Your task to perform on an android device: Do I have any events this weekend? Image 0: 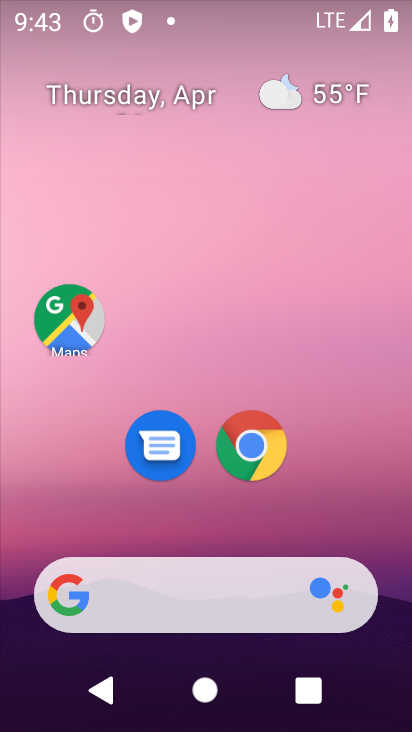
Step 0: drag from (381, 546) to (3, 371)
Your task to perform on an android device: Do I have any events this weekend? Image 1: 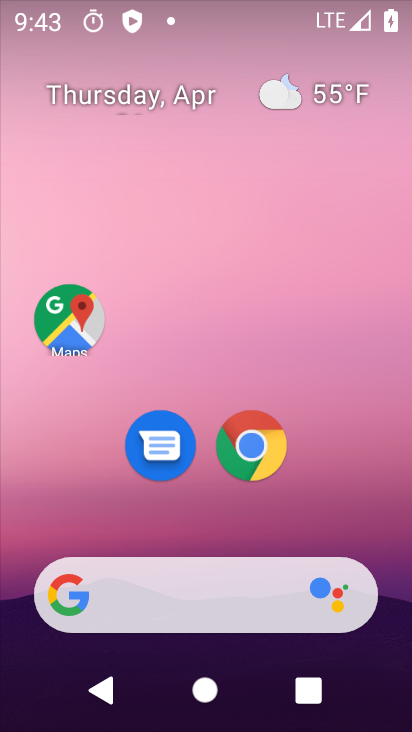
Step 1: drag from (391, 547) to (202, 16)
Your task to perform on an android device: Do I have any events this weekend? Image 2: 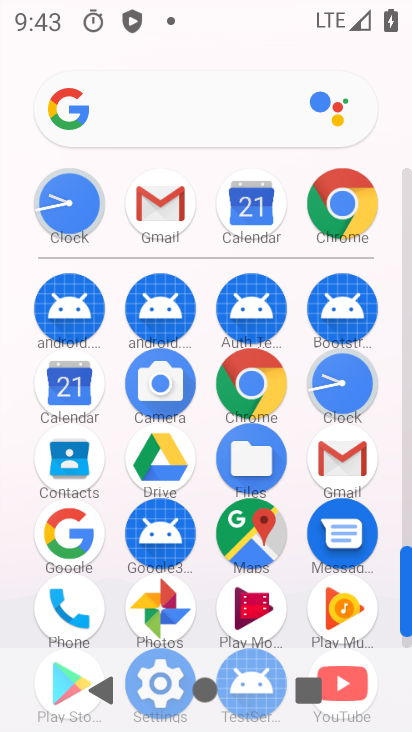
Step 2: click (60, 395)
Your task to perform on an android device: Do I have any events this weekend? Image 3: 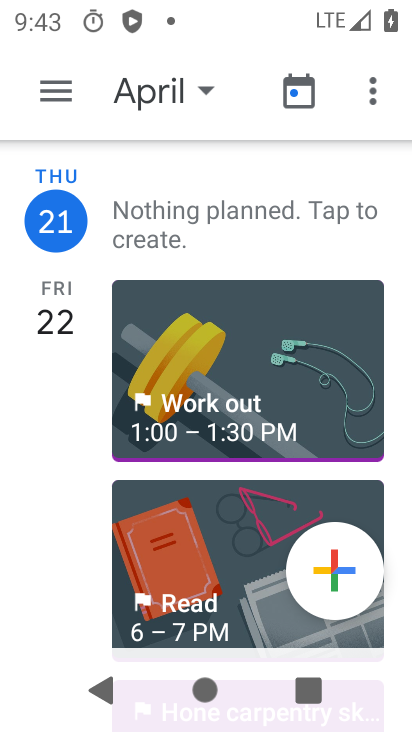
Step 3: click (208, 93)
Your task to perform on an android device: Do I have any events this weekend? Image 4: 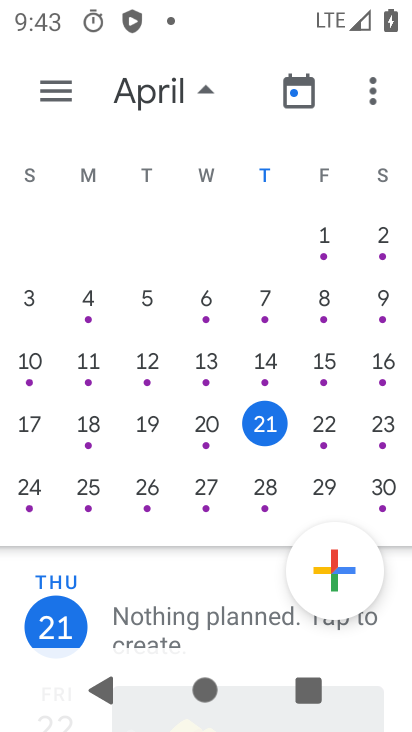
Step 4: click (385, 425)
Your task to perform on an android device: Do I have any events this weekend? Image 5: 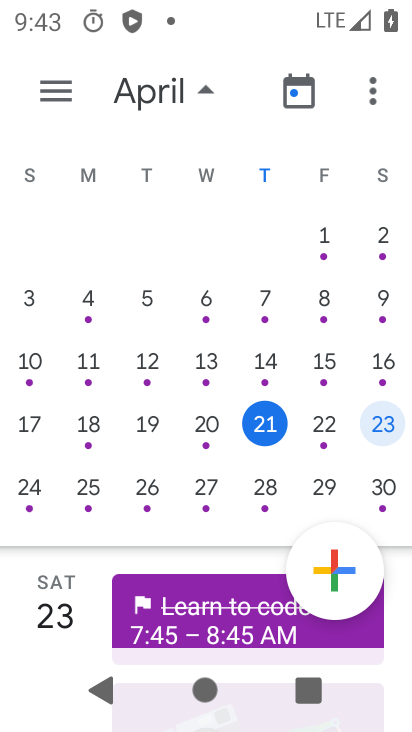
Step 5: drag from (154, 581) to (197, 224)
Your task to perform on an android device: Do I have any events this weekend? Image 6: 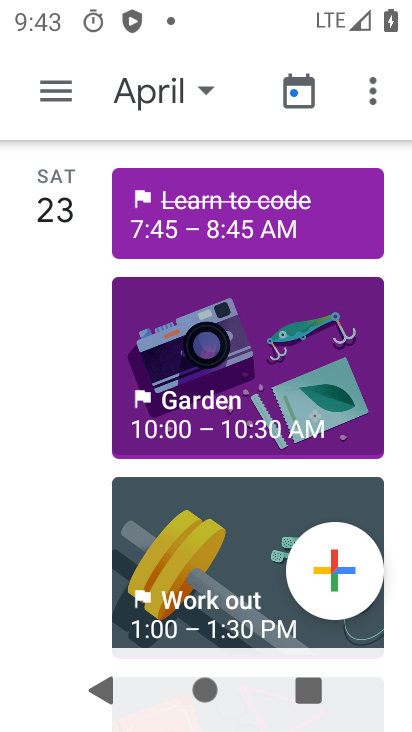
Step 6: click (212, 351)
Your task to perform on an android device: Do I have any events this weekend? Image 7: 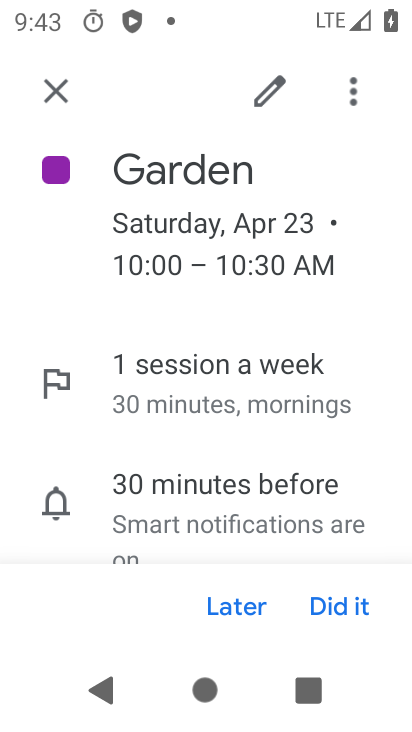
Step 7: task complete